Your task to perform on an android device: Search for Mexican restaurants on Maps Image 0: 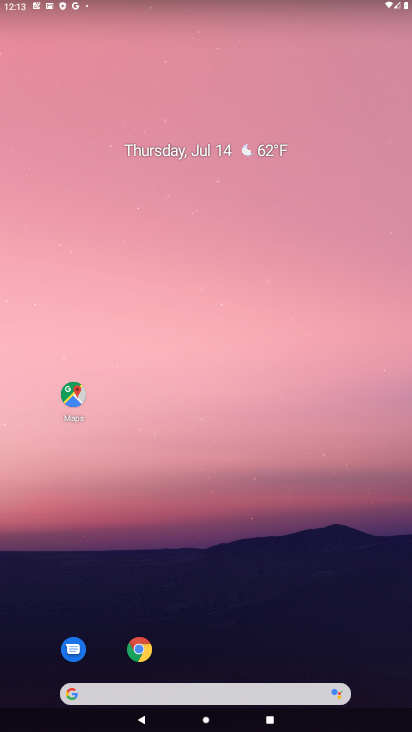
Step 0: drag from (379, 695) to (231, 128)
Your task to perform on an android device: Search for Mexican restaurants on Maps Image 1: 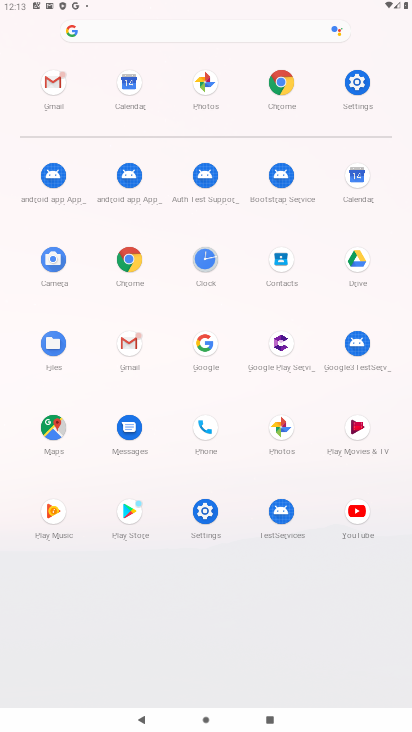
Step 1: click (44, 417)
Your task to perform on an android device: Search for Mexican restaurants on Maps Image 2: 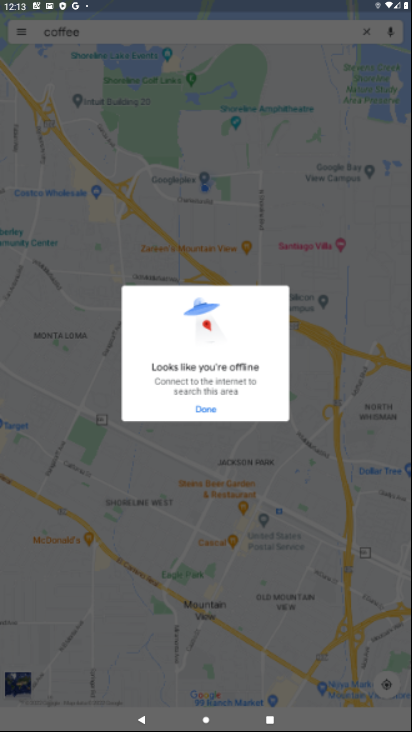
Step 2: press back button
Your task to perform on an android device: Search for Mexican restaurants on Maps Image 3: 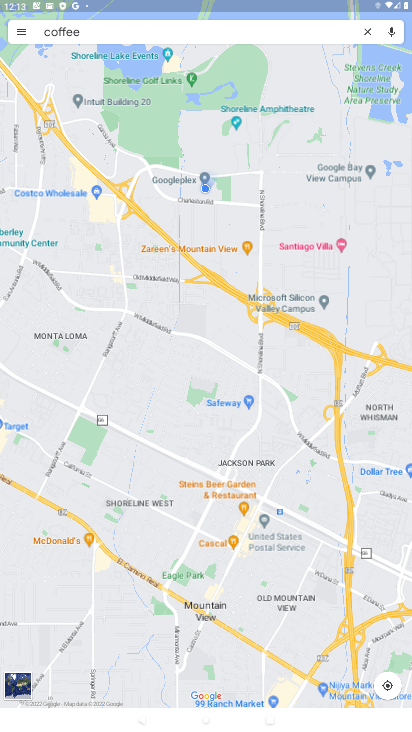
Step 3: click (369, 29)
Your task to perform on an android device: Search for Mexican restaurants on Maps Image 4: 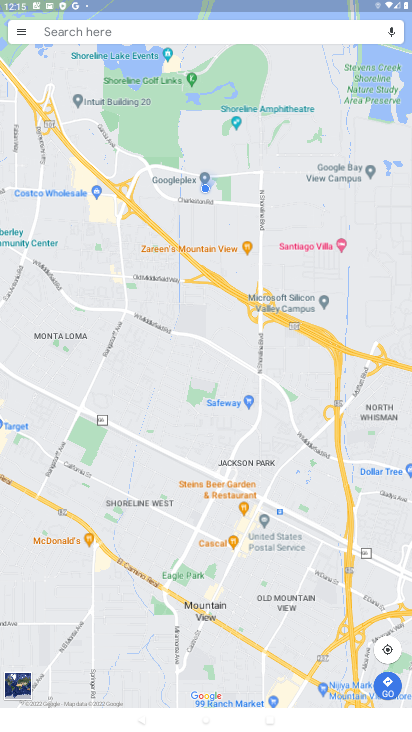
Step 4: click (81, 28)
Your task to perform on an android device: Search for Mexican restaurants on Maps Image 5: 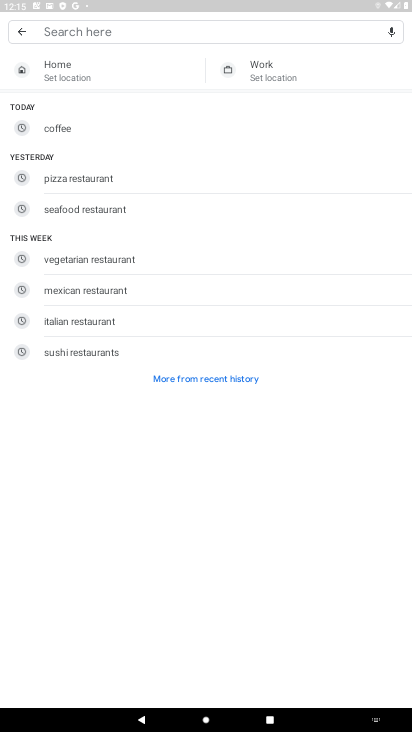
Step 5: click (70, 285)
Your task to perform on an android device: Search for Mexican restaurants on Maps Image 6: 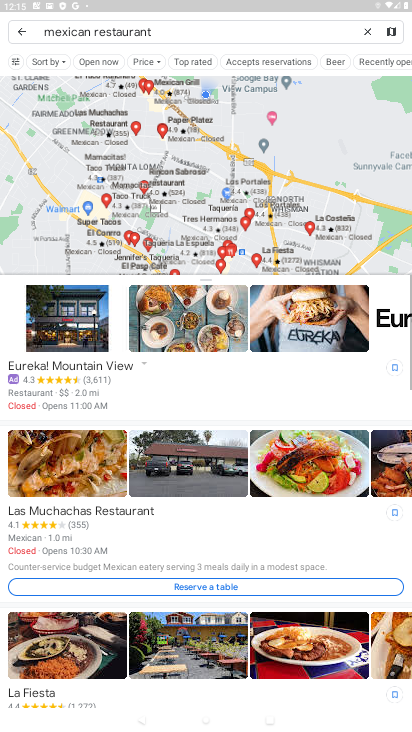
Step 6: task complete